Your task to perform on an android device: Search for seafood restaurants on Google Maps Image 0: 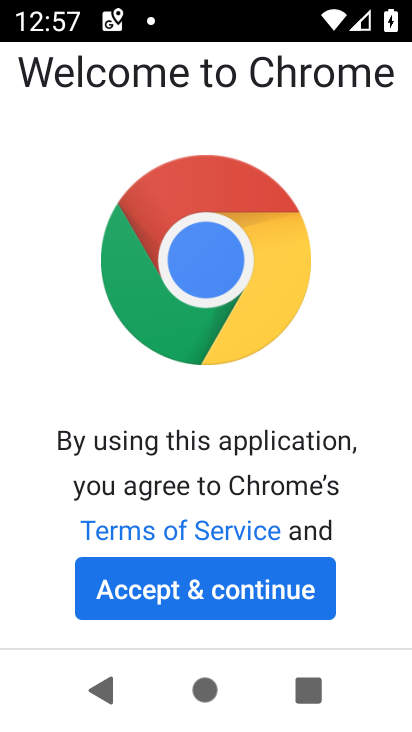
Step 0: press home button
Your task to perform on an android device: Search for seafood restaurants on Google Maps Image 1: 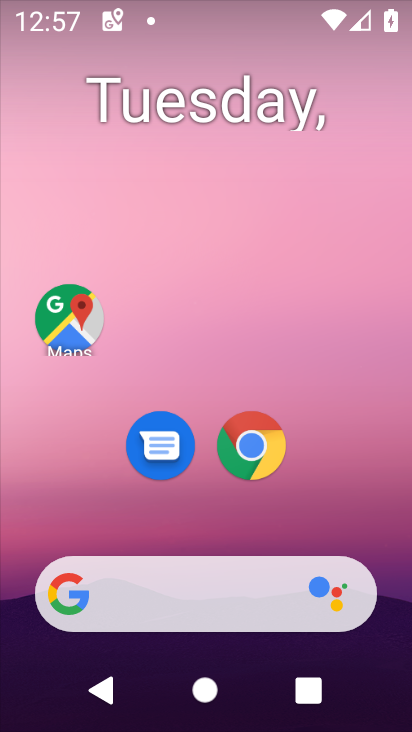
Step 1: drag from (303, 627) to (242, 193)
Your task to perform on an android device: Search for seafood restaurants on Google Maps Image 2: 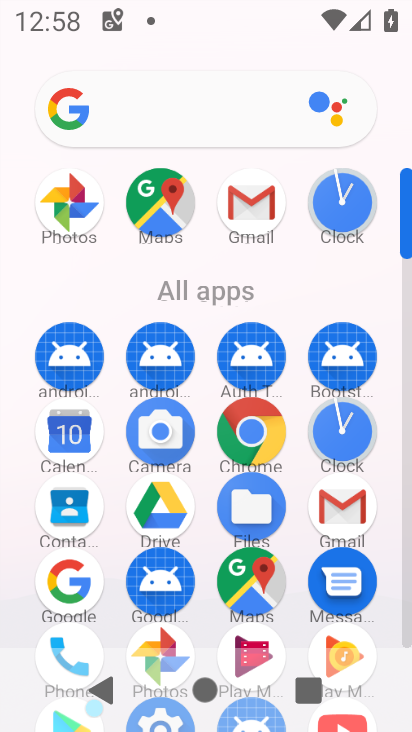
Step 2: click (133, 202)
Your task to perform on an android device: Search for seafood restaurants on Google Maps Image 3: 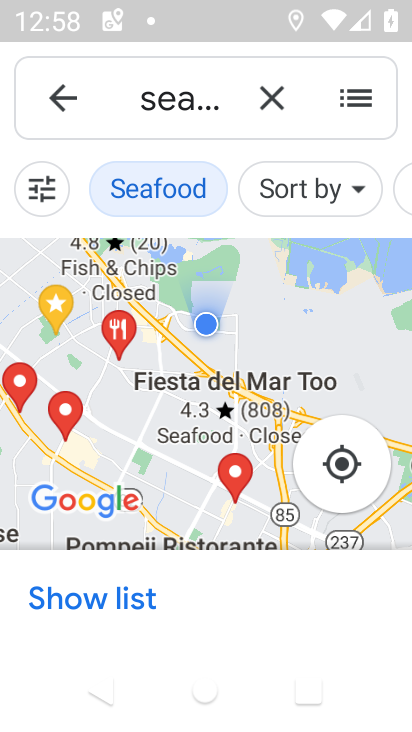
Step 3: task complete